Your task to perform on an android device: toggle improve location accuracy Image 0: 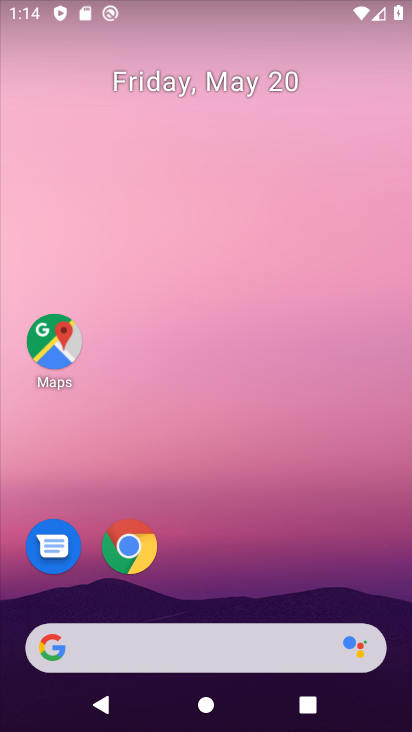
Step 0: drag from (24, 630) to (261, 73)
Your task to perform on an android device: toggle improve location accuracy Image 1: 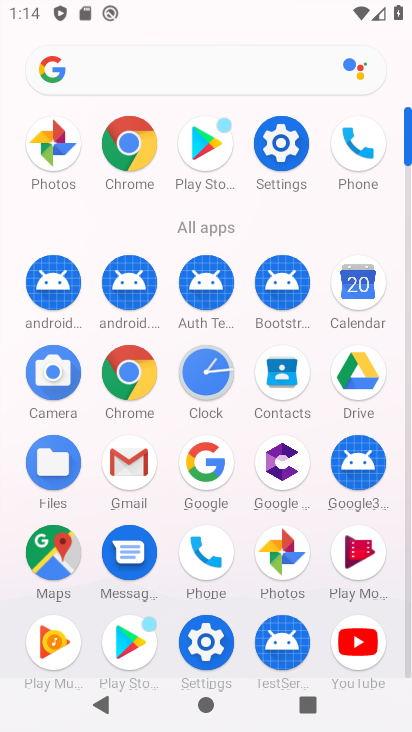
Step 1: click (276, 141)
Your task to perform on an android device: toggle improve location accuracy Image 2: 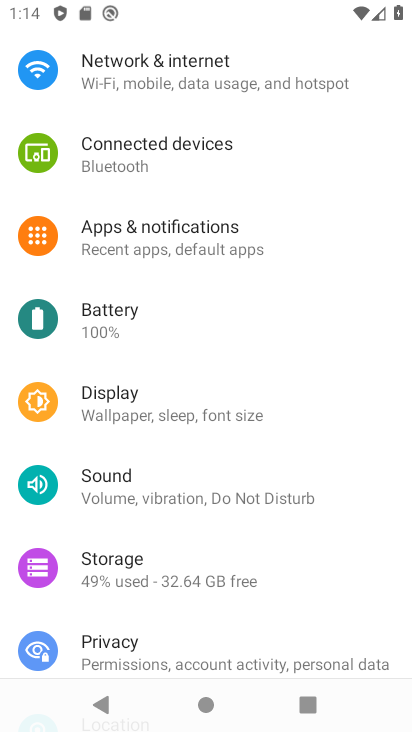
Step 2: drag from (147, 626) to (238, 176)
Your task to perform on an android device: toggle improve location accuracy Image 3: 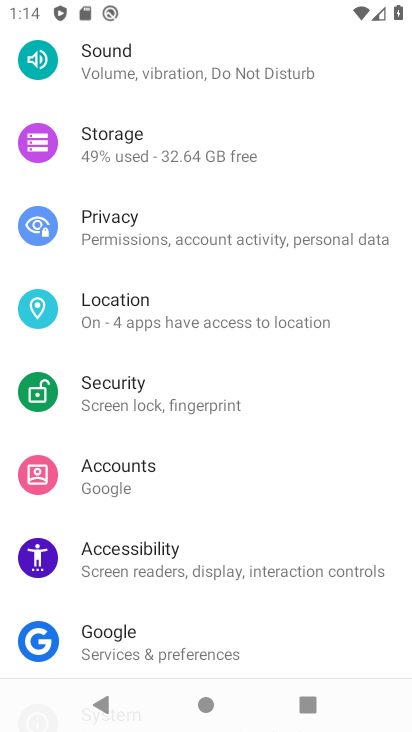
Step 3: drag from (18, 584) to (148, 175)
Your task to perform on an android device: toggle improve location accuracy Image 4: 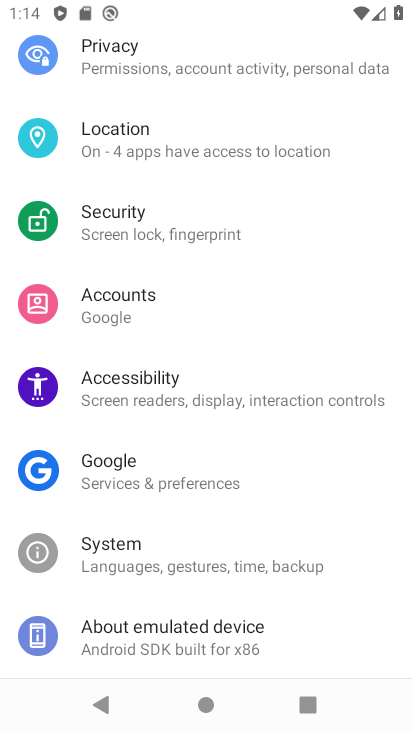
Step 4: drag from (116, 86) to (93, 637)
Your task to perform on an android device: toggle improve location accuracy Image 5: 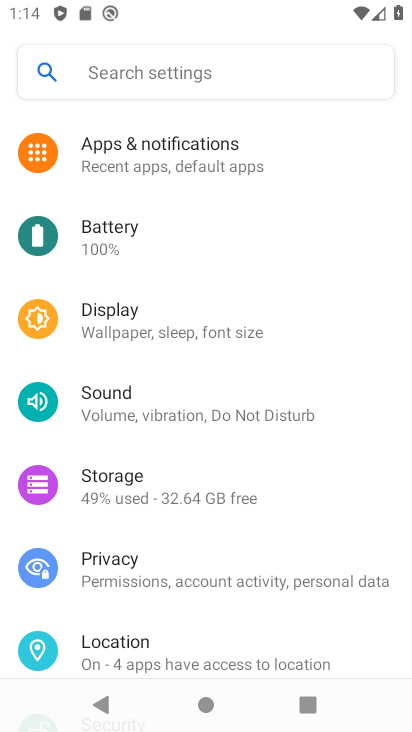
Step 5: click (83, 639)
Your task to perform on an android device: toggle improve location accuracy Image 6: 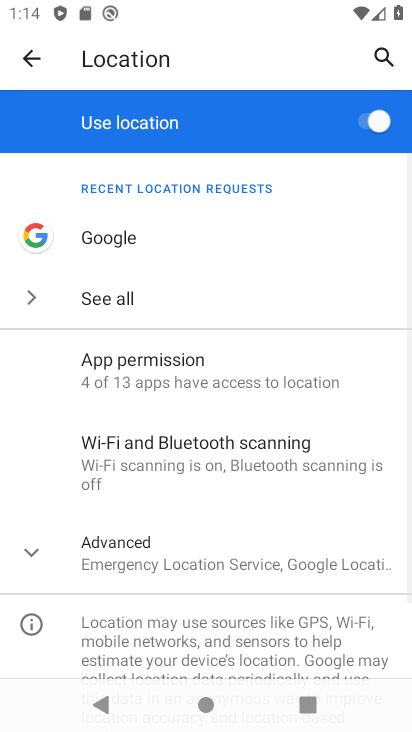
Step 6: click (182, 550)
Your task to perform on an android device: toggle improve location accuracy Image 7: 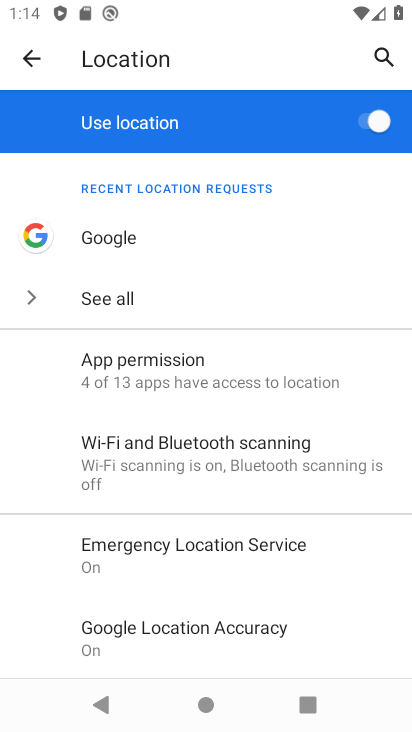
Step 7: click (213, 631)
Your task to perform on an android device: toggle improve location accuracy Image 8: 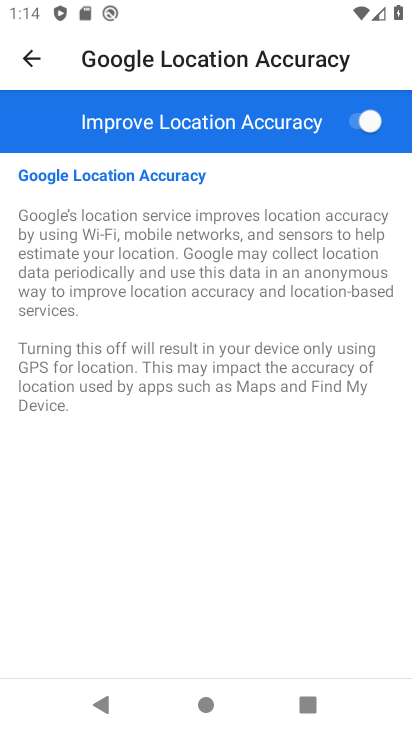
Step 8: click (358, 128)
Your task to perform on an android device: toggle improve location accuracy Image 9: 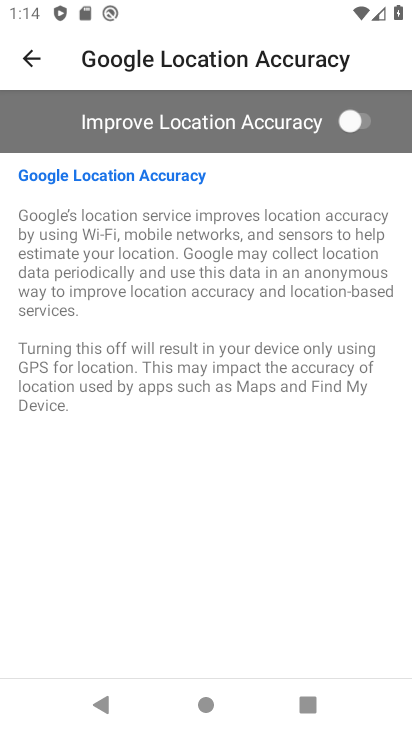
Step 9: task complete